Your task to perform on an android device: find snoozed emails in the gmail app Image 0: 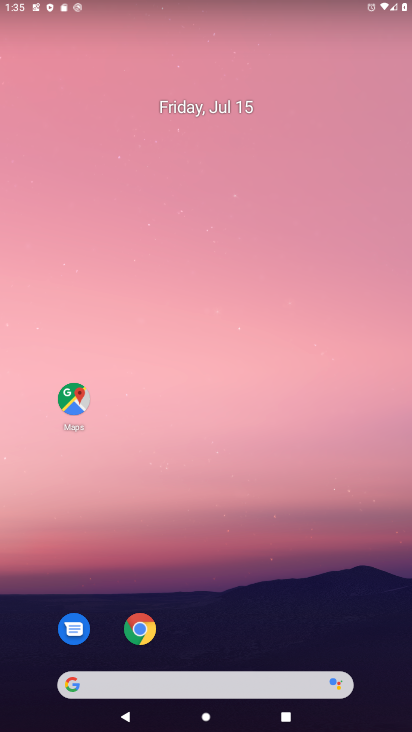
Step 0: drag from (312, 558) to (306, 86)
Your task to perform on an android device: find snoozed emails in the gmail app Image 1: 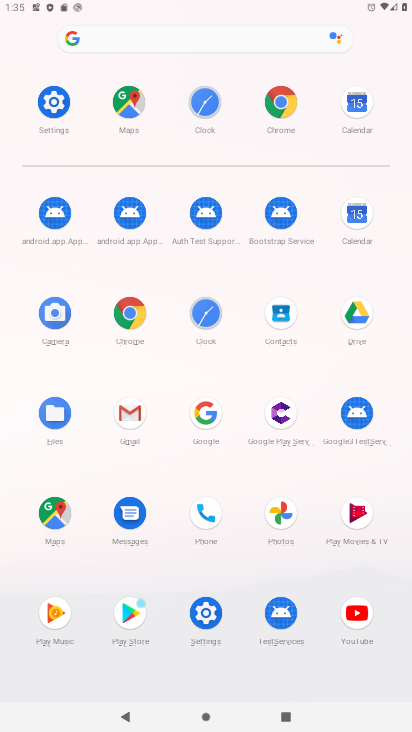
Step 1: click (130, 417)
Your task to perform on an android device: find snoozed emails in the gmail app Image 2: 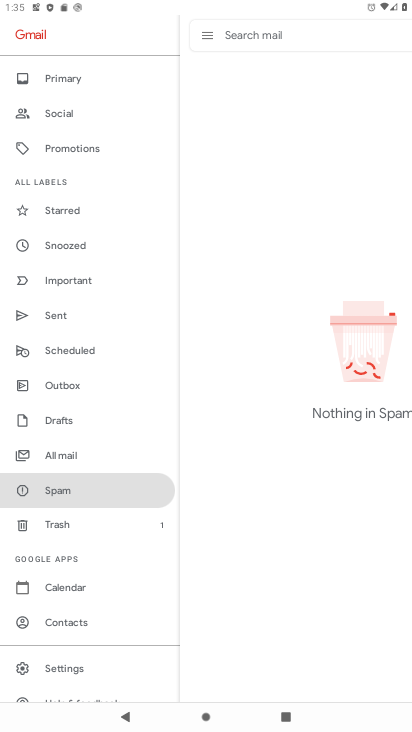
Step 2: drag from (127, 664) to (124, 393)
Your task to perform on an android device: find snoozed emails in the gmail app Image 3: 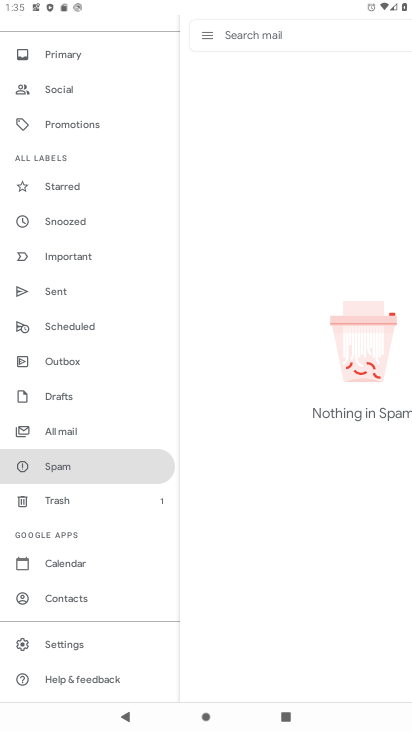
Step 3: click (82, 225)
Your task to perform on an android device: find snoozed emails in the gmail app Image 4: 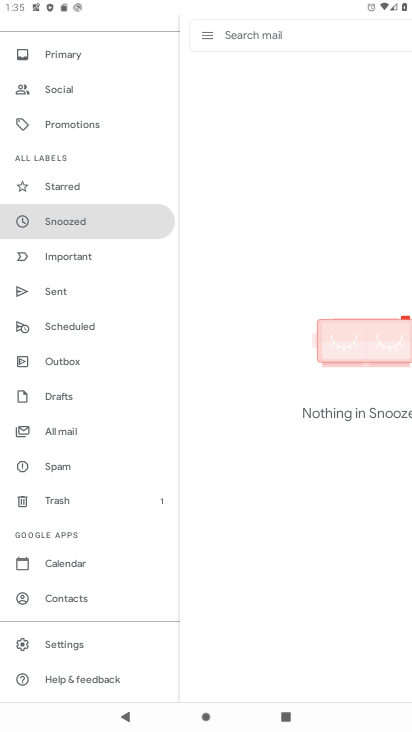
Step 4: task complete